Your task to perform on an android device: Search for seafood restaurants on Google Maps Image 0: 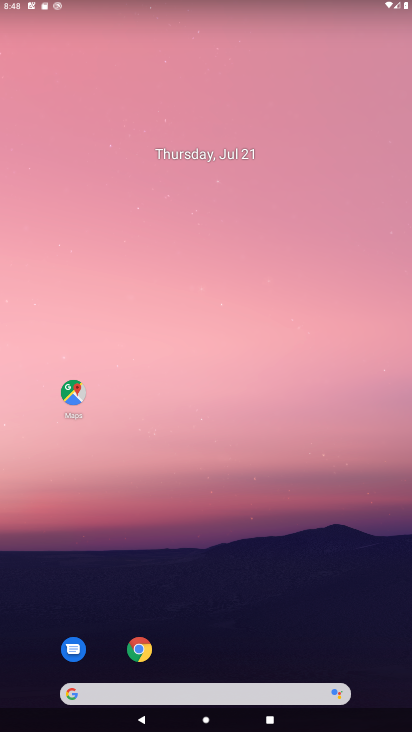
Step 0: click (71, 396)
Your task to perform on an android device: Search for seafood restaurants on Google Maps Image 1: 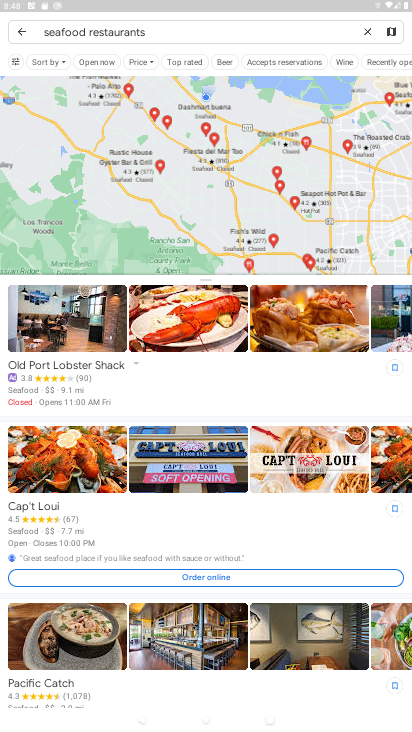
Step 1: task complete